Your task to perform on an android device: Search for Mexican restaurants on Maps Image 0: 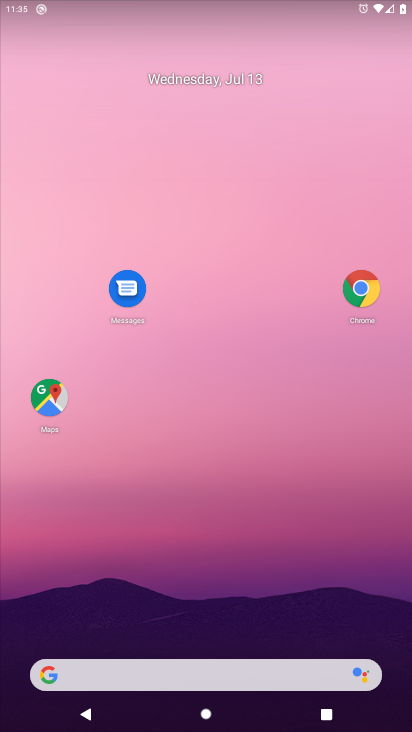
Step 0: click (38, 392)
Your task to perform on an android device: Search for Mexican restaurants on Maps Image 1: 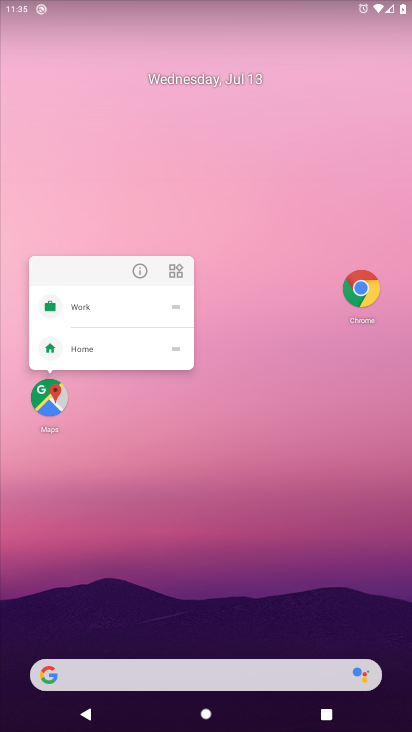
Step 1: click (61, 405)
Your task to perform on an android device: Search for Mexican restaurants on Maps Image 2: 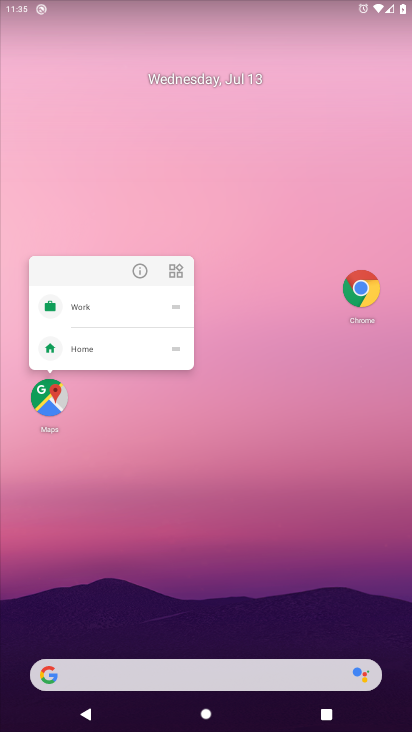
Step 2: click (46, 406)
Your task to perform on an android device: Search for Mexican restaurants on Maps Image 3: 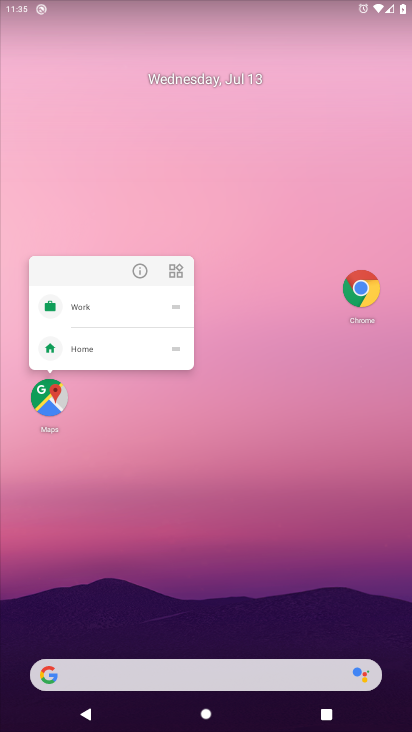
Step 3: click (51, 393)
Your task to perform on an android device: Search for Mexican restaurants on Maps Image 4: 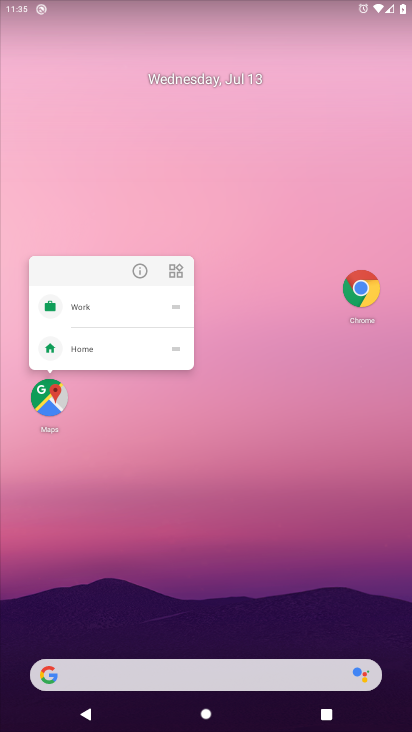
Step 4: click (47, 410)
Your task to perform on an android device: Search for Mexican restaurants on Maps Image 5: 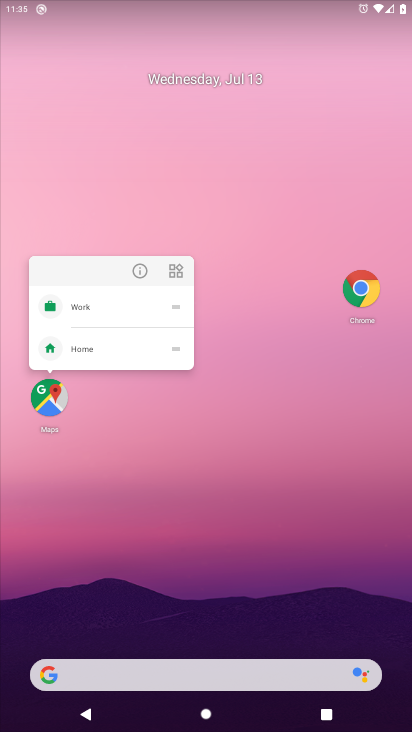
Step 5: click (41, 398)
Your task to perform on an android device: Search for Mexican restaurants on Maps Image 6: 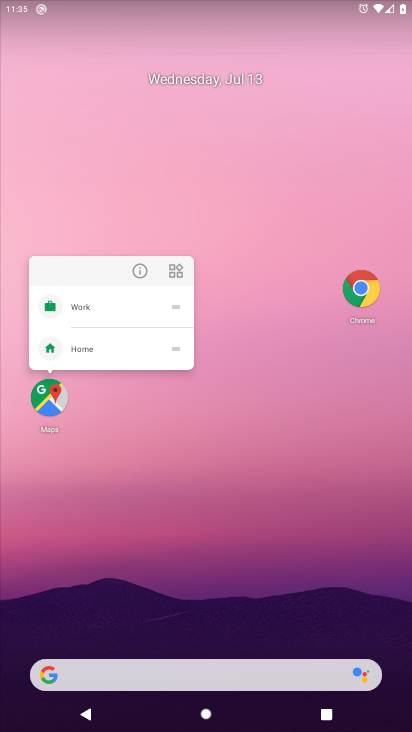
Step 6: task complete